Your task to perform on an android device: change the clock display to analog Image 0: 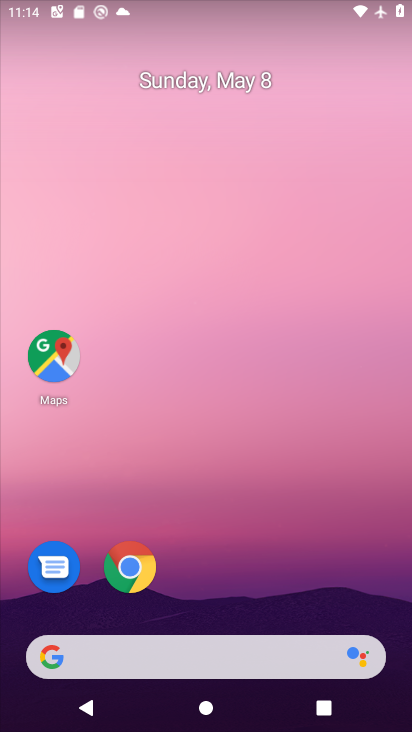
Step 0: drag from (197, 582) to (228, 122)
Your task to perform on an android device: change the clock display to analog Image 1: 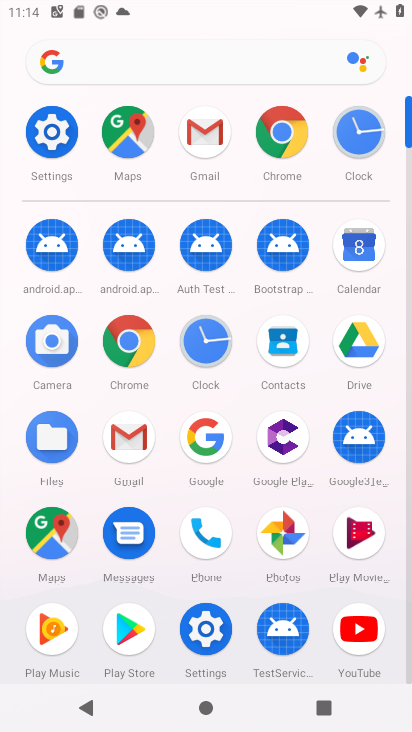
Step 1: click (360, 172)
Your task to perform on an android device: change the clock display to analog Image 2: 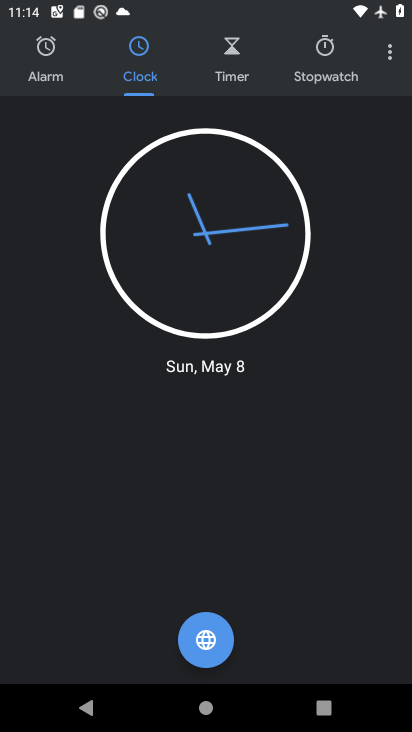
Step 2: click (394, 48)
Your task to perform on an android device: change the clock display to analog Image 3: 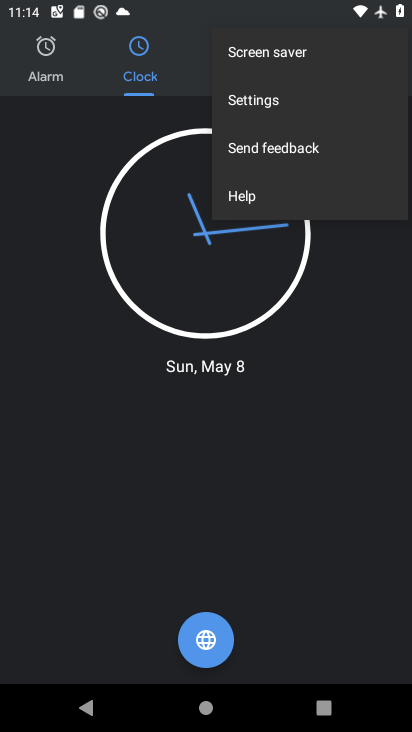
Step 3: click (279, 111)
Your task to perform on an android device: change the clock display to analog Image 4: 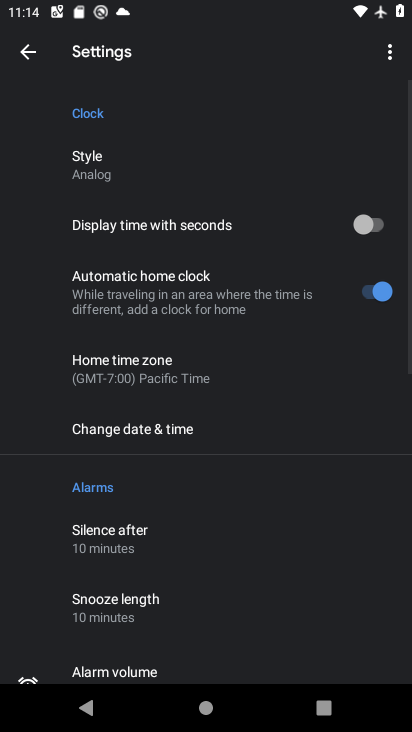
Step 4: click (97, 172)
Your task to perform on an android device: change the clock display to analog Image 5: 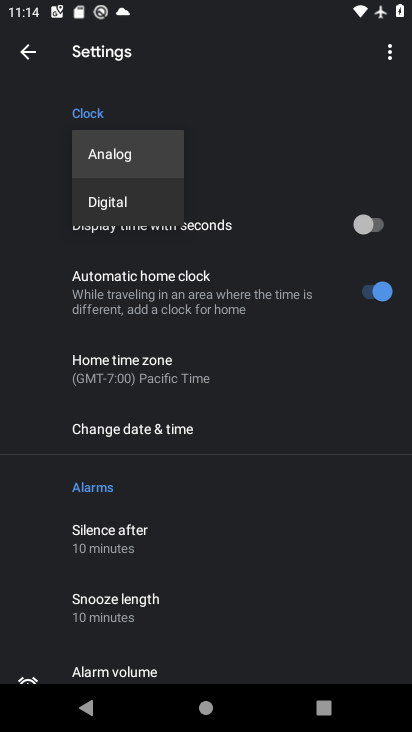
Step 5: click (117, 162)
Your task to perform on an android device: change the clock display to analog Image 6: 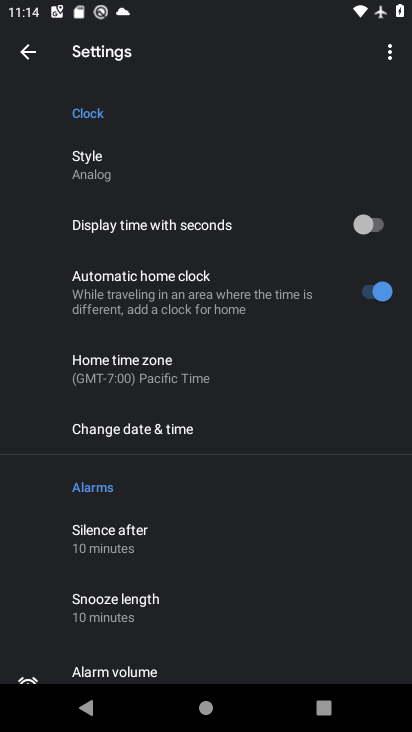
Step 6: task complete